Your task to perform on an android device: turn off airplane mode Image 0: 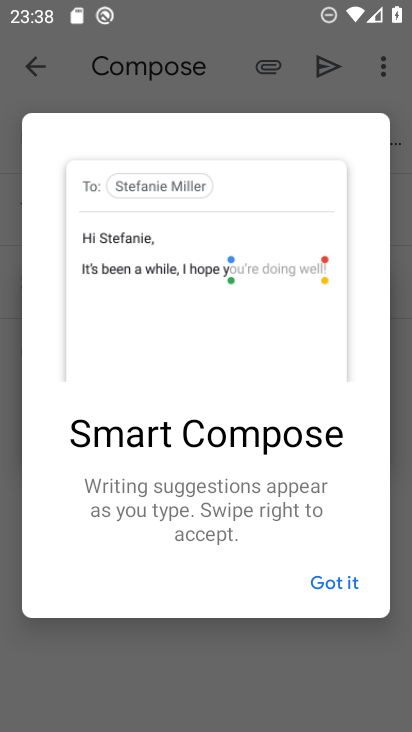
Step 0: press home button
Your task to perform on an android device: turn off airplane mode Image 1: 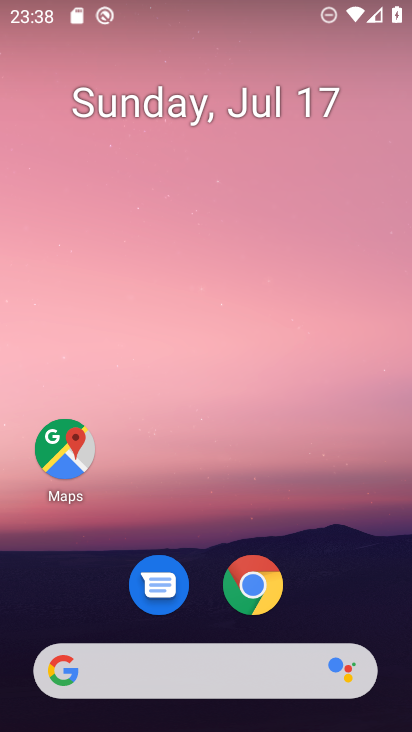
Step 1: drag from (180, 679) to (230, 150)
Your task to perform on an android device: turn off airplane mode Image 2: 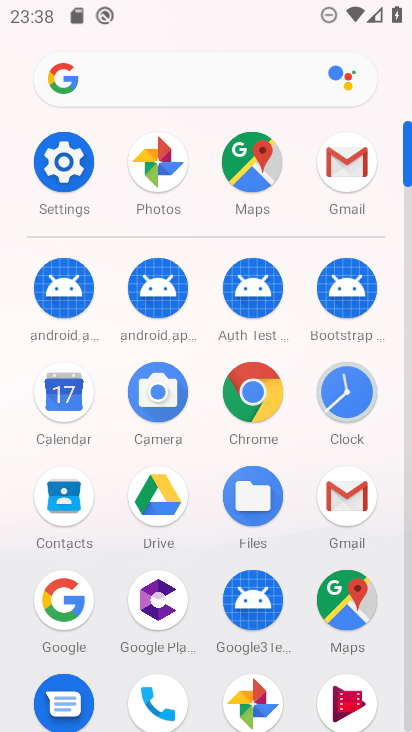
Step 2: click (66, 165)
Your task to perform on an android device: turn off airplane mode Image 3: 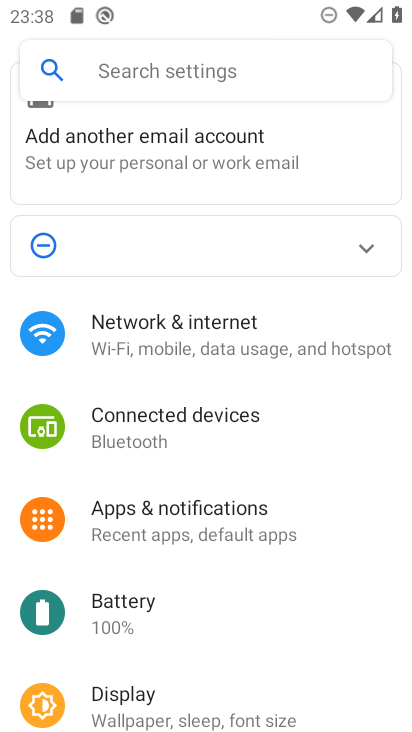
Step 3: click (207, 330)
Your task to perform on an android device: turn off airplane mode Image 4: 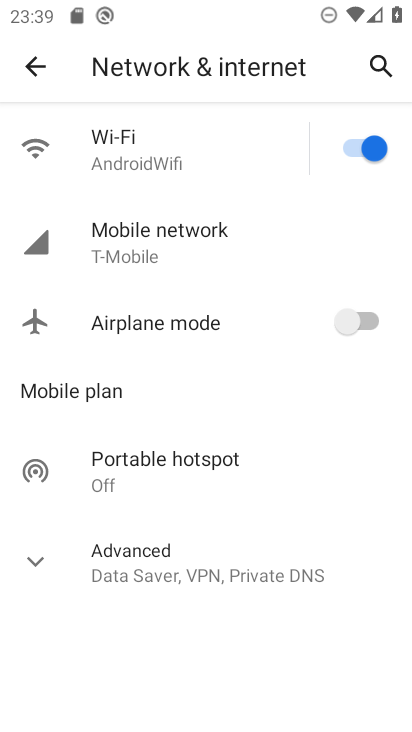
Step 4: task complete